Your task to perform on an android device: toggle pop-ups in chrome Image 0: 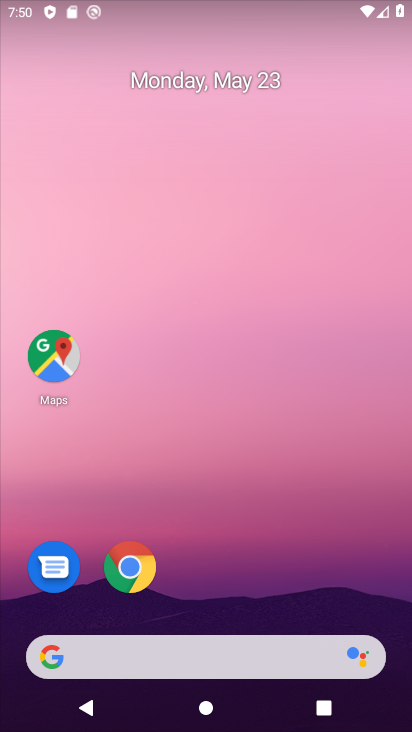
Step 0: drag from (226, 589) to (233, 105)
Your task to perform on an android device: toggle pop-ups in chrome Image 1: 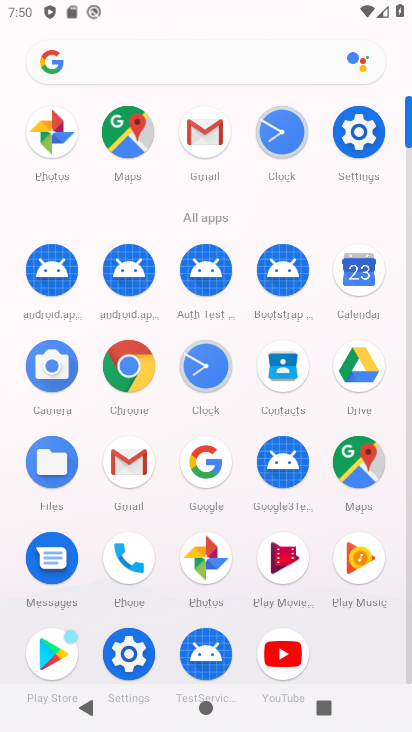
Step 1: click (146, 360)
Your task to perform on an android device: toggle pop-ups in chrome Image 2: 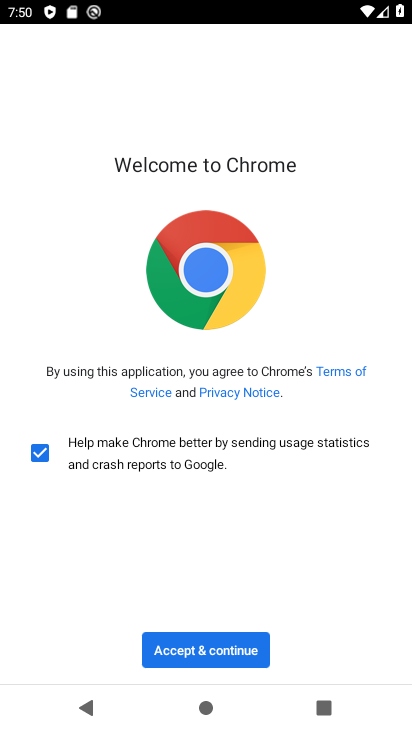
Step 2: click (230, 638)
Your task to perform on an android device: toggle pop-ups in chrome Image 3: 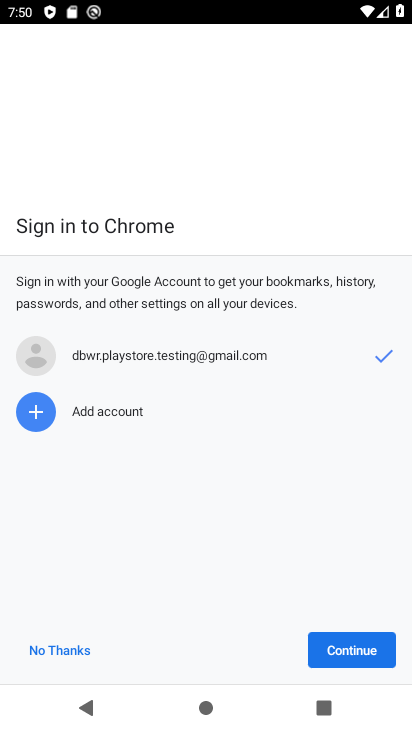
Step 3: click (334, 643)
Your task to perform on an android device: toggle pop-ups in chrome Image 4: 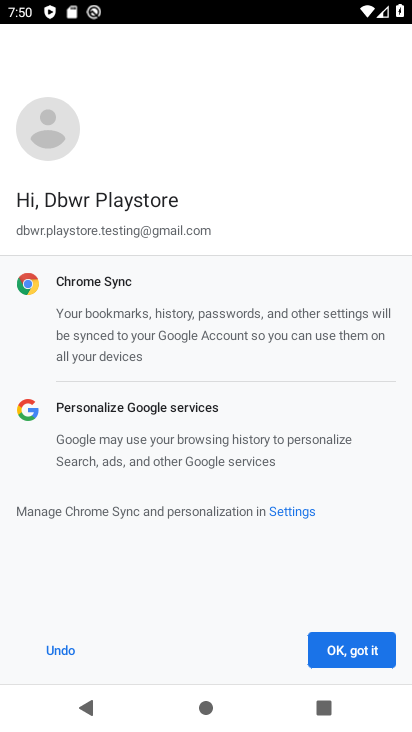
Step 4: click (334, 642)
Your task to perform on an android device: toggle pop-ups in chrome Image 5: 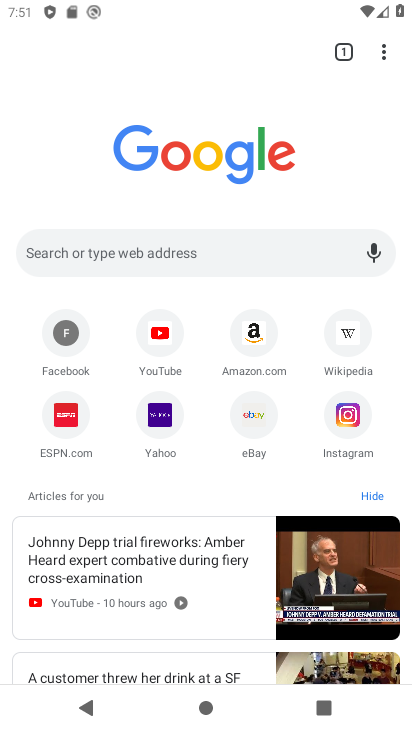
Step 5: click (386, 50)
Your task to perform on an android device: toggle pop-ups in chrome Image 6: 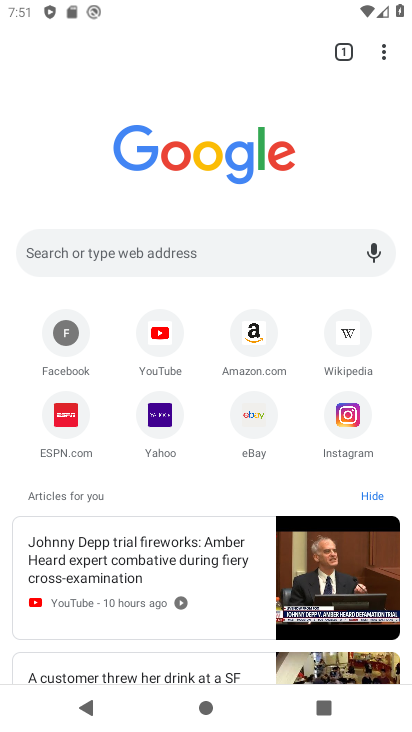
Step 6: click (386, 62)
Your task to perform on an android device: toggle pop-ups in chrome Image 7: 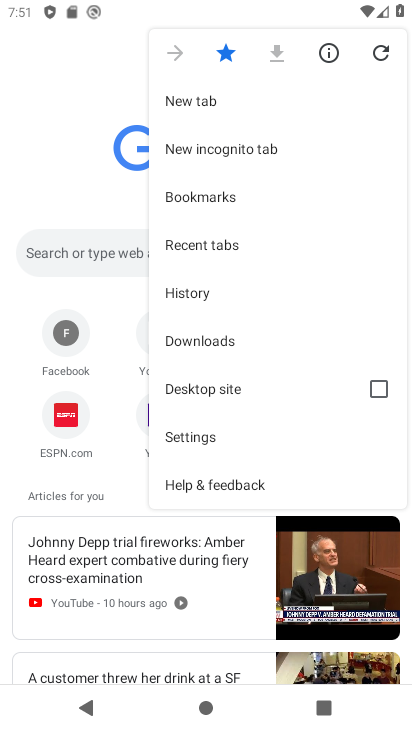
Step 7: click (191, 436)
Your task to perform on an android device: toggle pop-ups in chrome Image 8: 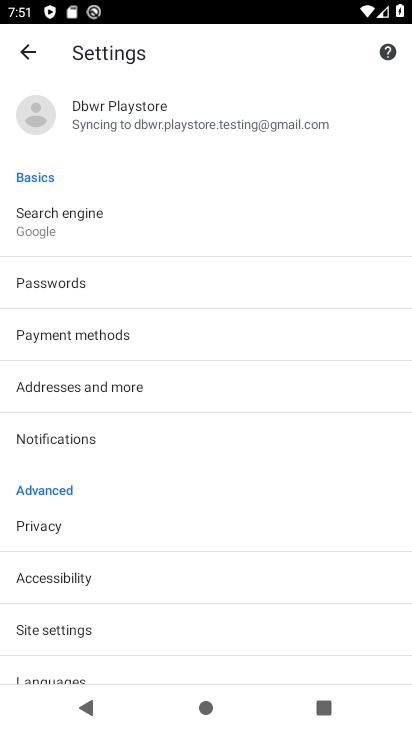
Step 8: click (70, 638)
Your task to perform on an android device: toggle pop-ups in chrome Image 9: 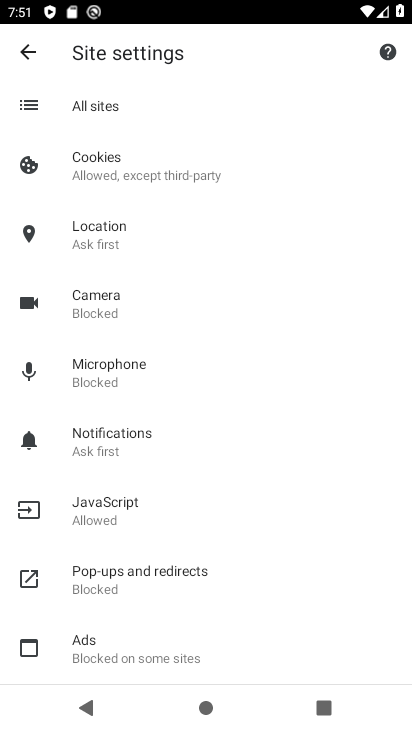
Step 9: click (121, 579)
Your task to perform on an android device: toggle pop-ups in chrome Image 10: 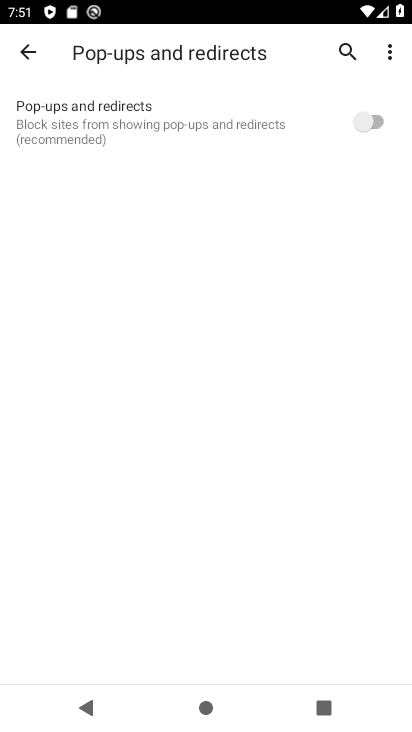
Step 10: click (385, 113)
Your task to perform on an android device: toggle pop-ups in chrome Image 11: 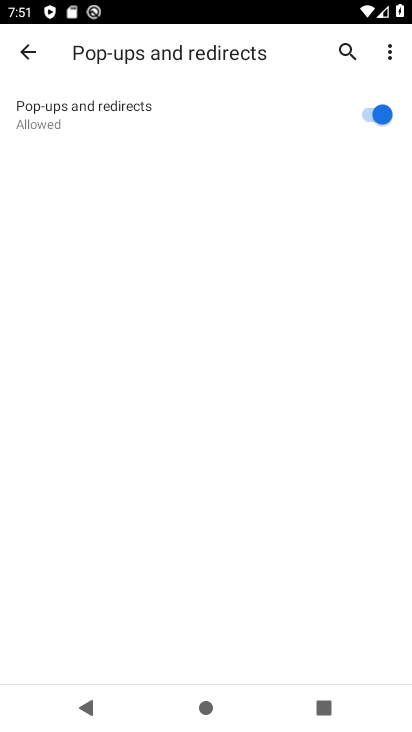
Step 11: task complete